Your task to perform on an android device: install app "Contacts" Image 0: 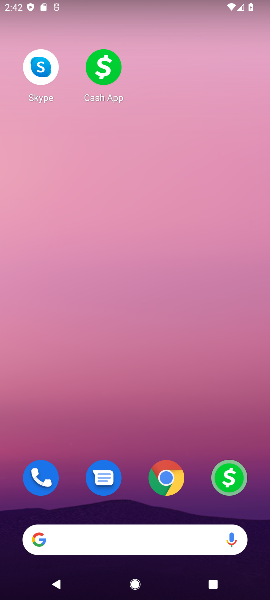
Step 0: press home button
Your task to perform on an android device: install app "Contacts" Image 1: 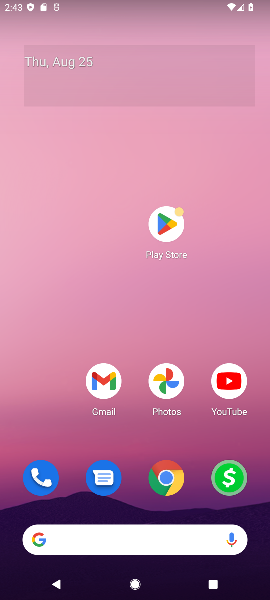
Step 1: click (166, 227)
Your task to perform on an android device: install app "Contacts" Image 2: 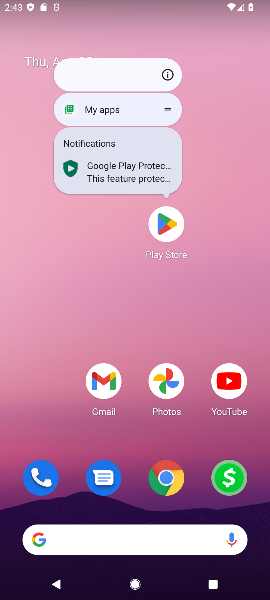
Step 2: click (167, 228)
Your task to perform on an android device: install app "Contacts" Image 3: 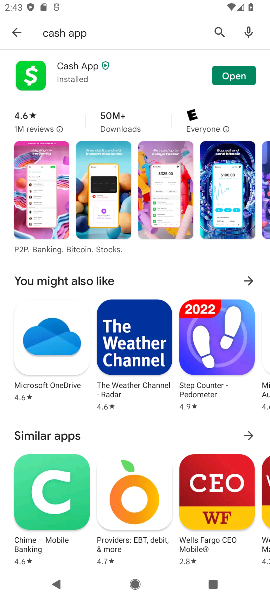
Step 3: click (220, 32)
Your task to perform on an android device: install app "Contacts" Image 4: 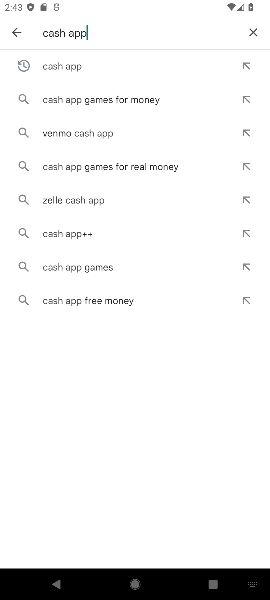
Step 4: click (251, 28)
Your task to perform on an android device: install app "Contacts" Image 5: 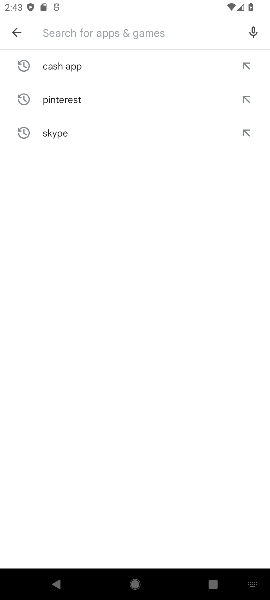
Step 5: type "Contacts"
Your task to perform on an android device: install app "Contacts" Image 6: 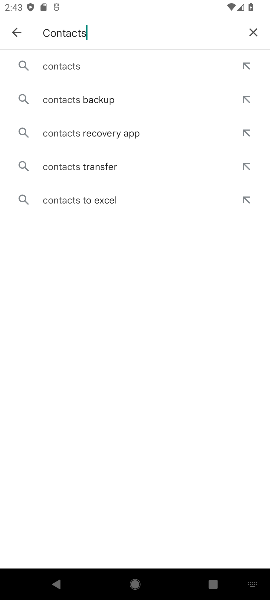
Step 6: click (64, 68)
Your task to perform on an android device: install app "Contacts" Image 7: 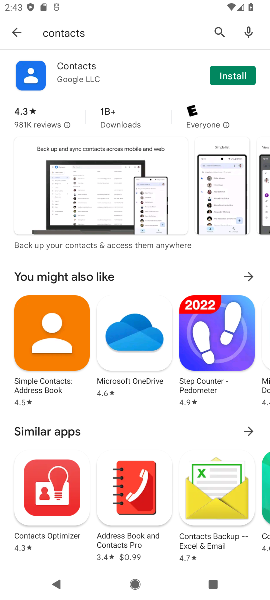
Step 7: click (223, 80)
Your task to perform on an android device: install app "Contacts" Image 8: 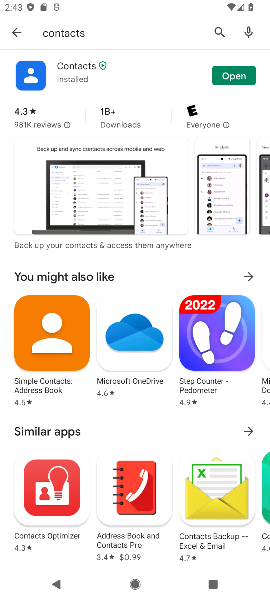
Step 8: task complete